Your task to perform on an android device: Search for Mexican restaurants on Maps Image 0: 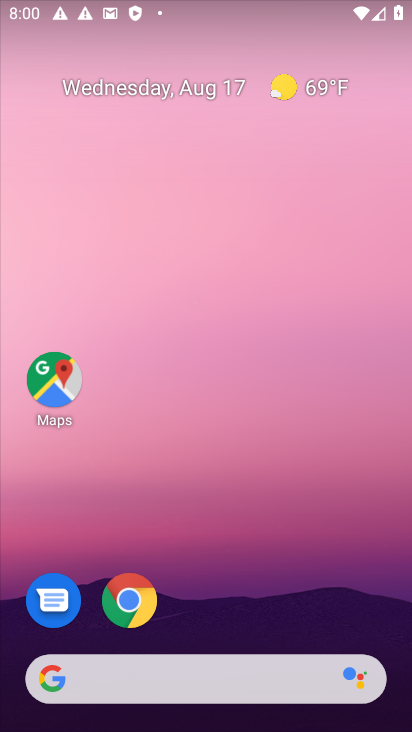
Step 0: press home button
Your task to perform on an android device: Search for Mexican restaurants on Maps Image 1: 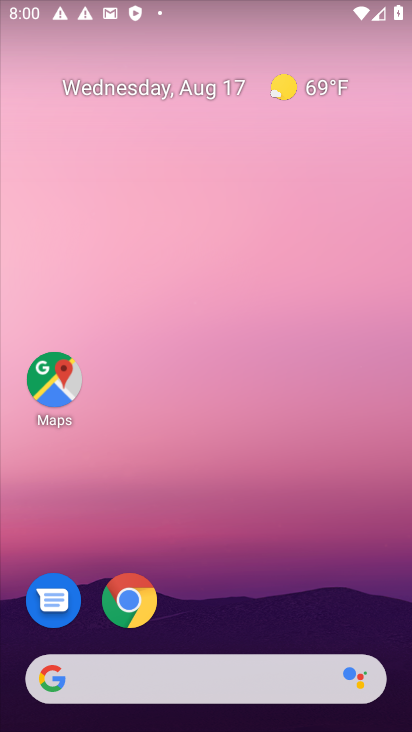
Step 1: click (47, 368)
Your task to perform on an android device: Search for Mexican restaurants on Maps Image 2: 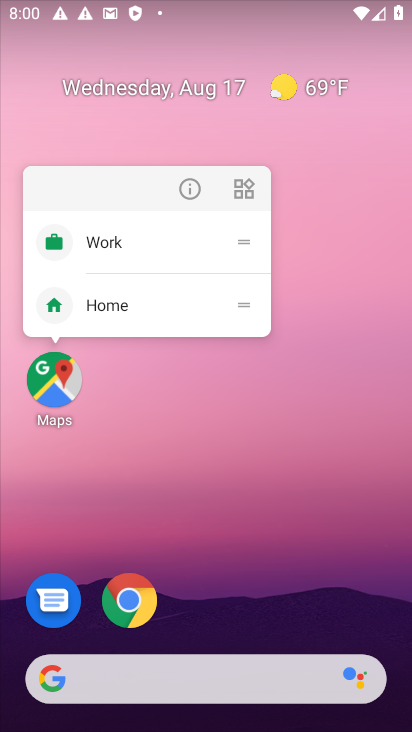
Step 2: click (61, 386)
Your task to perform on an android device: Search for Mexican restaurants on Maps Image 3: 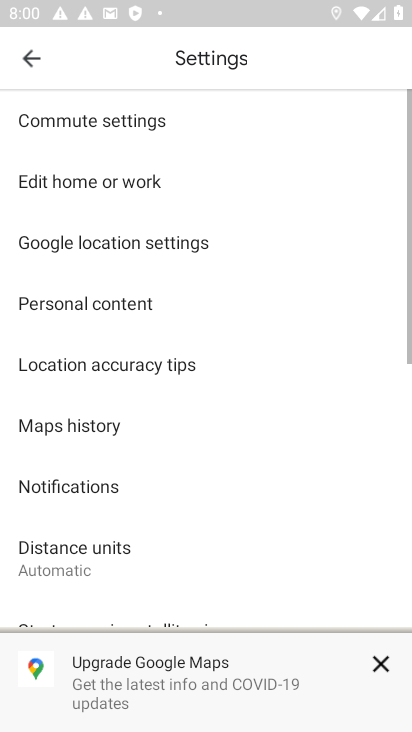
Step 3: click (47, 59)
Your task to perform on an android device: Search for Mexican restaurants on Maps Image 4: 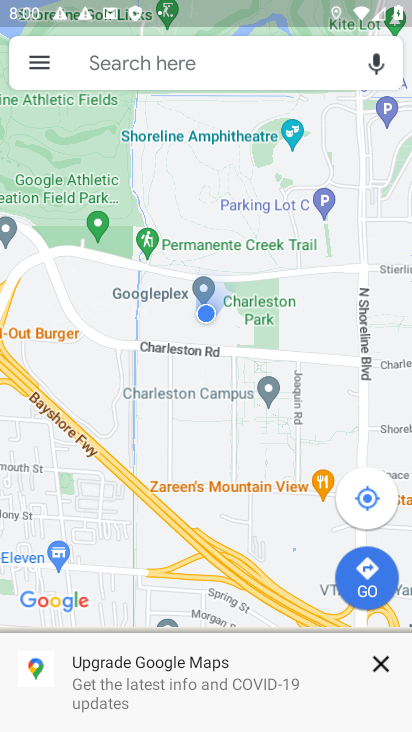
Step 4: click (194, 57)
Your task to perform on an android device: Search for Mexican restaurants on Maps Image 5: 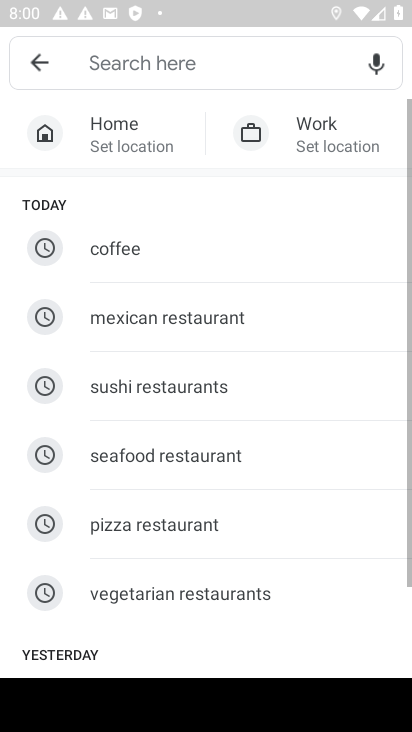
Step 5: click (182, 325)
Your task to perform on an android device: Search for Mexican restaurants on Maps Image 6: 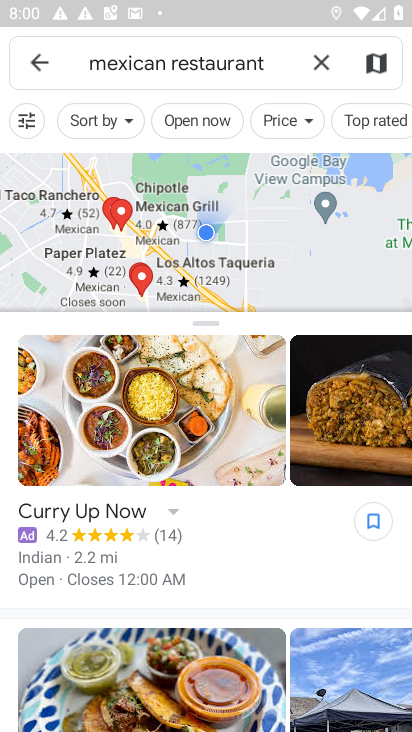
Step 6: task complete